Your task to perform on an android device: What is the news today? Image 0: 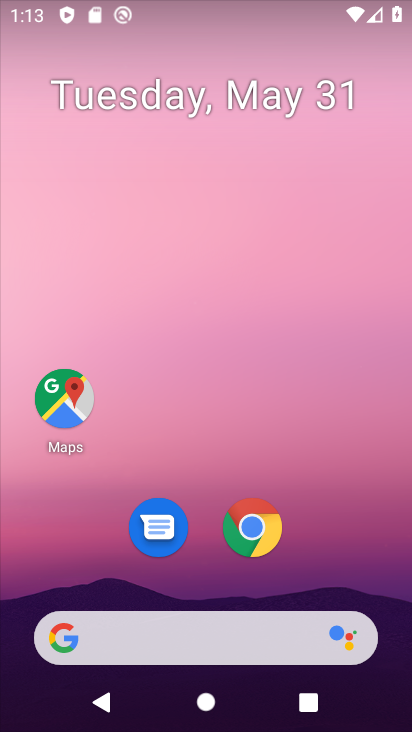
Step 0: drag from (341, 568) to (256, 59)
Your task to perform on an android device: What is the news today? Image 1: 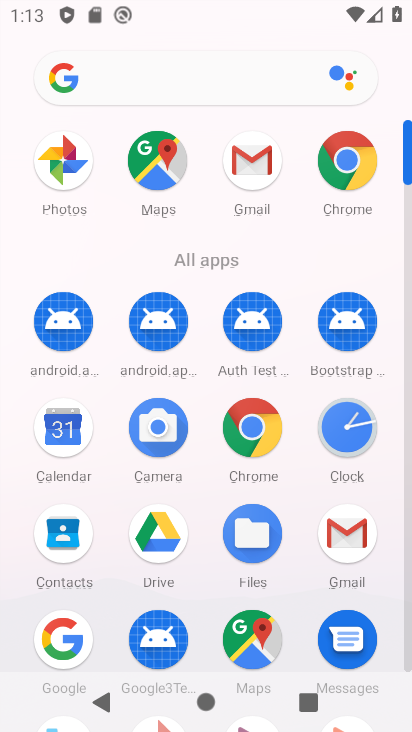
Step 1: click (336, 169)
Your task to perform on an android device: What is the news today? Image 2: 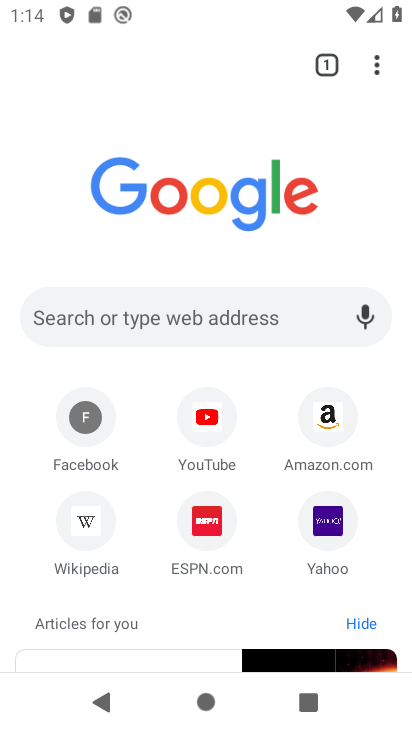
Step 2: task complete